Your task to perform on an android device: Show me recent news Image 0: 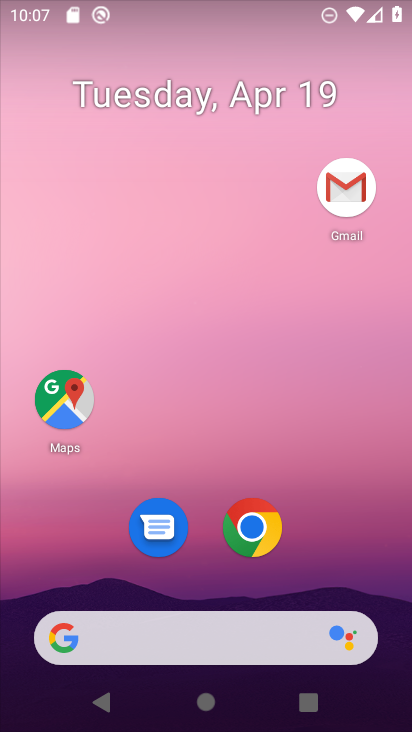
Step 0: click (271, 532)
Your task to perform on an android device: Show me recent news Image 1: 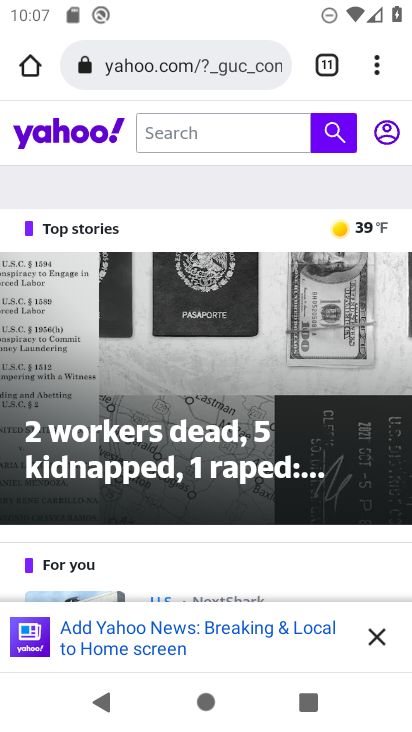
Step 1: click (238, 66)
Your task to perform on an android device: Show me recent news Image 2: 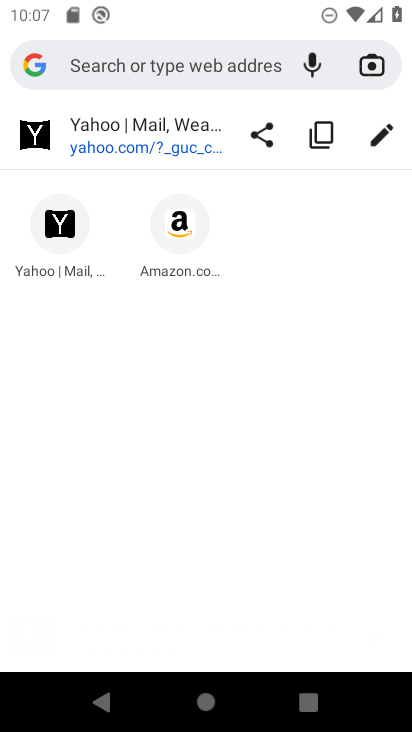
Step 2: type "recent news"
Your task to perform on an android device: Show me recent news Image 3: 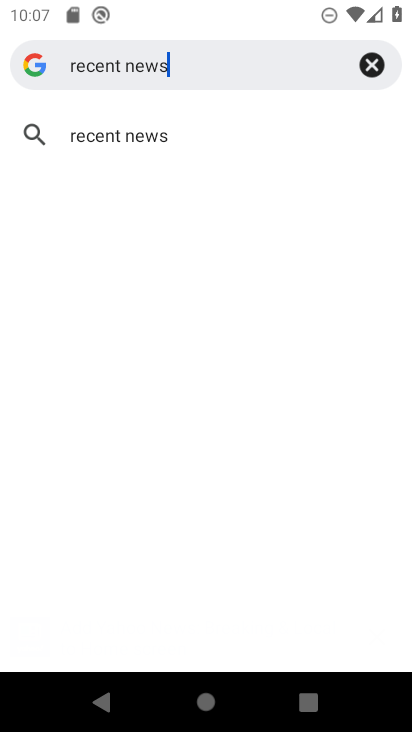
Step 3: click (126, 129)
Your task to perform on an android device: Show me recent news Image 4: 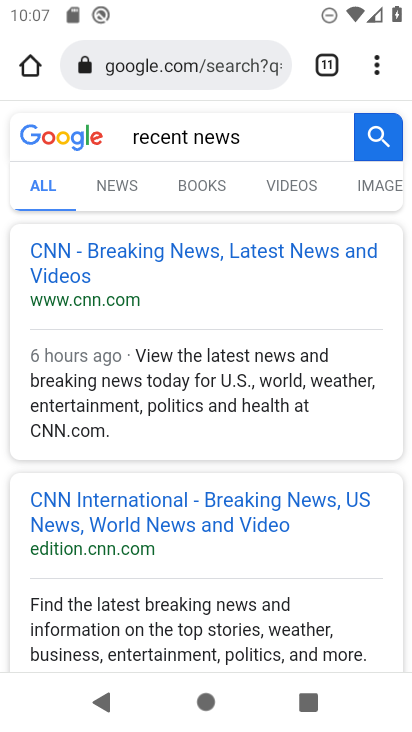
Step 4: task complete